Your task to perform on an android device: find photos in the google photos app Image 0: 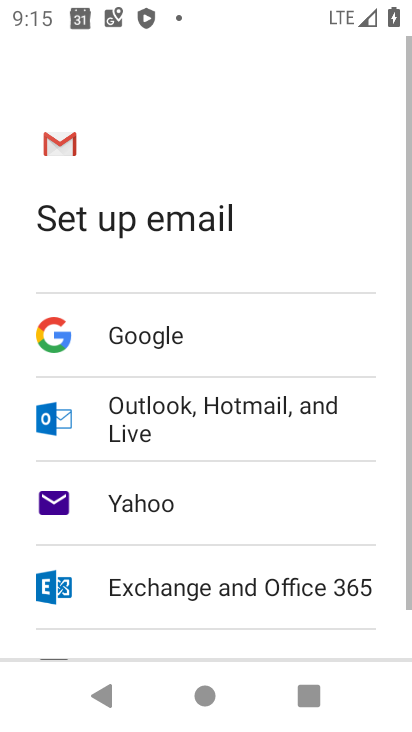
Step 0: press home button
Your task to perform on an android device: find photos in the google photos app Image 1: 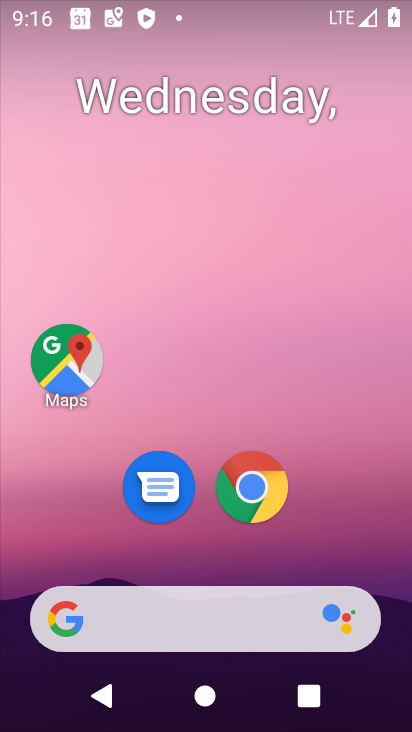
Step 1: drag from (216, 653) to (207, 240)
Your task to perform on an android device: find photos in the google photos app Image 2: 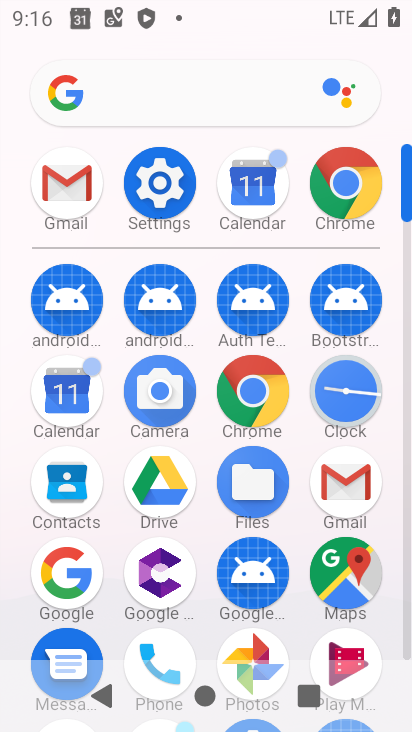
Step 2: click (250, 647)
Your task to perform on an android device: find photos in the google photos app Image 3: 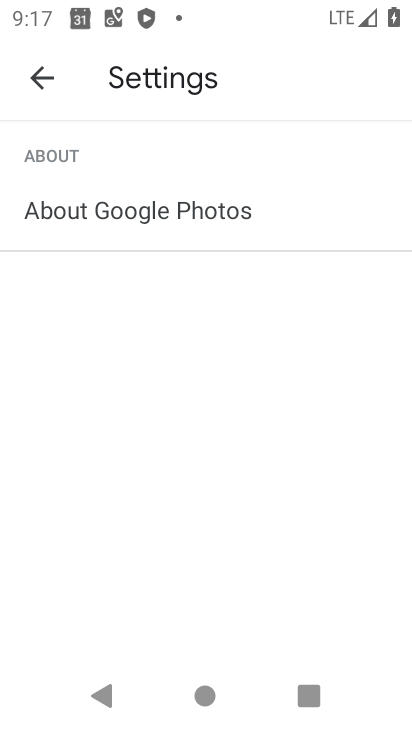
Step 3: click (35, 71)
Your task to perform on an android device: find photos in the google photos app Image 4: 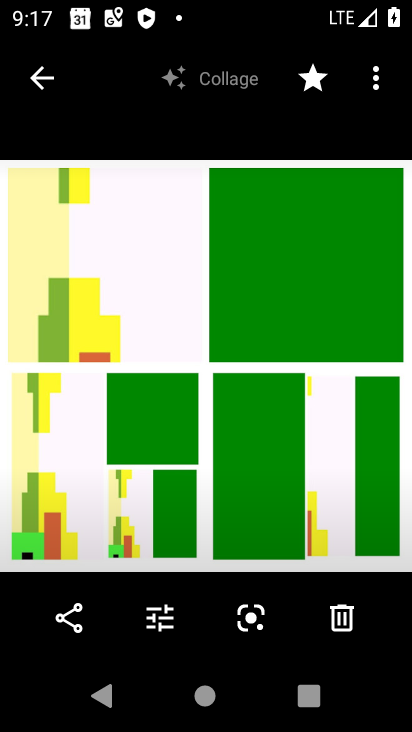
Step 4: click (33, 84)
Your task to perform on an android device: find photos in the google photos app Image 5: 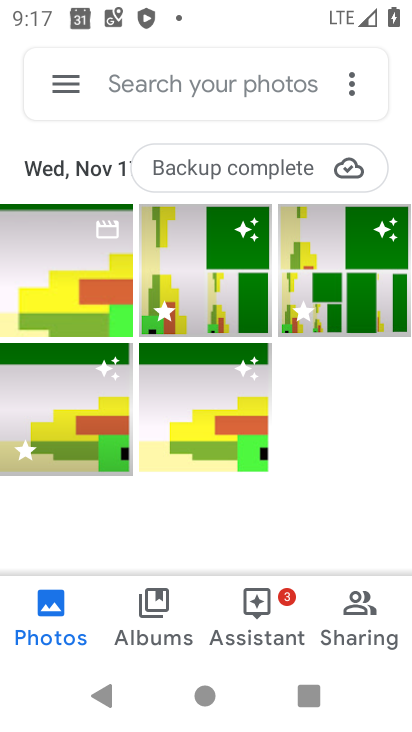
Step 5: task complete